Your task to perform on an android device: Do I have any events this weekend? Image 0: 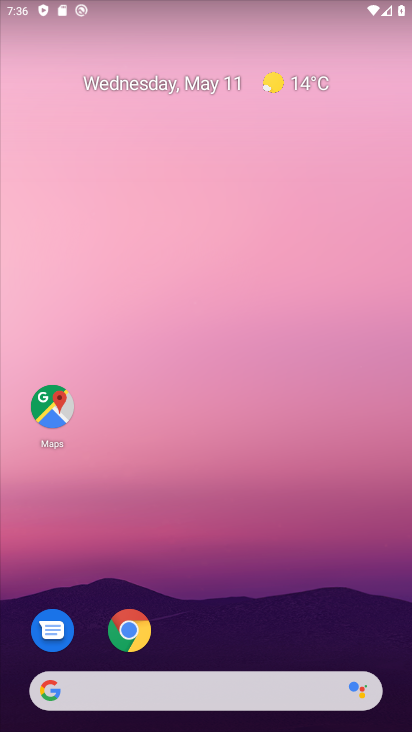
Step 0: drag from (319, 634) to (163, 128)
Your task to perform on an android device: Do I have any events this weekend? Image 1: 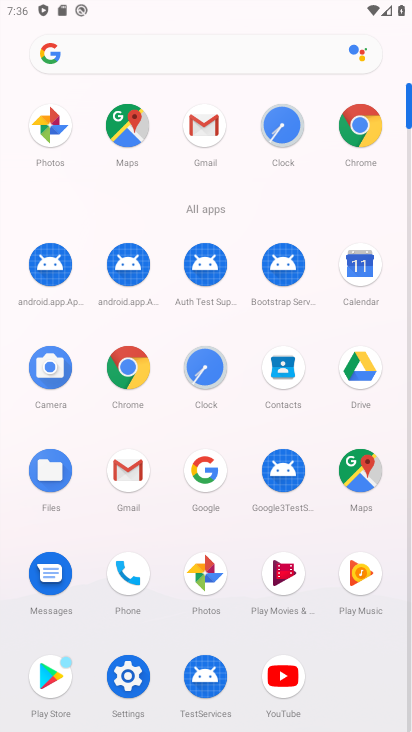
Step 1: click (356, 269)
Your task to perform on an android device: Do I have any events this weekend? Image 2: 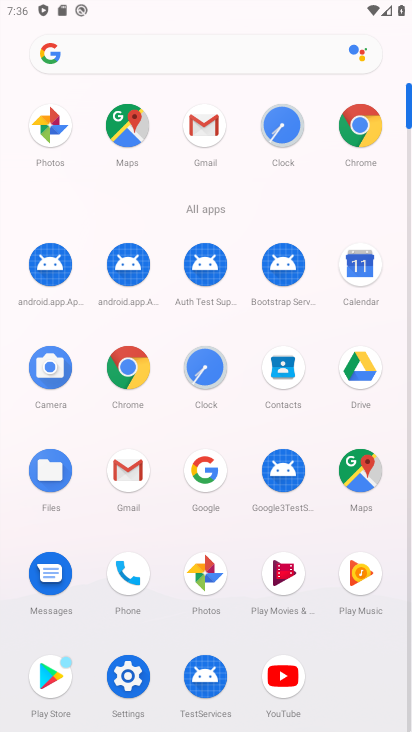
Step 2: click (356, 269)
Your task to perform on an android device: Do I have any events this weekend? Image 3: 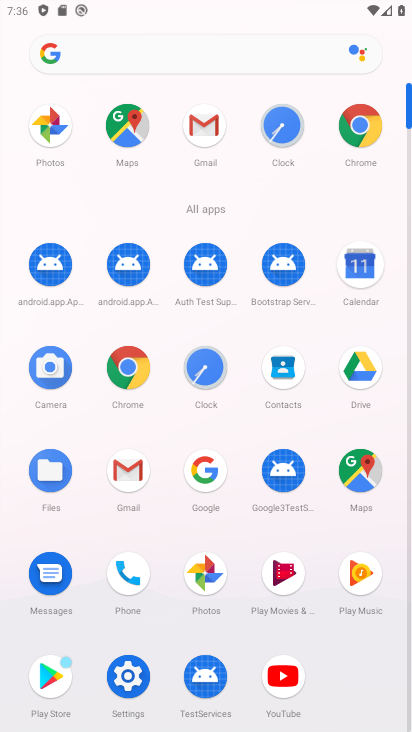
Step 3: click (356, 269)
Your task to perform on an android device: Do I have any events this weekend? Image 4: 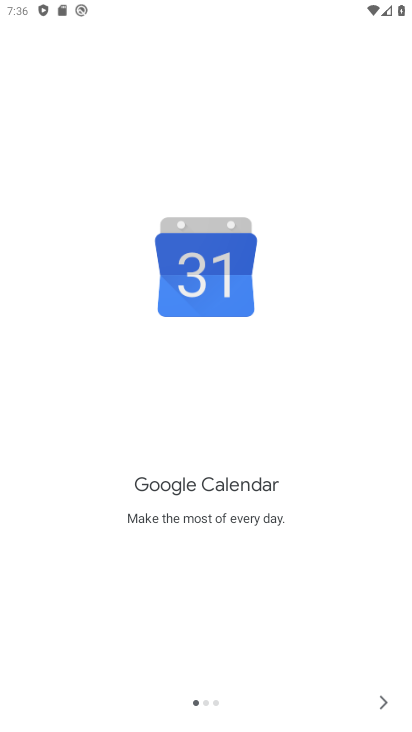
Step 4: click (369, 698)
Your task to perform on an android device: Do I have any events this weekend? Image 5: 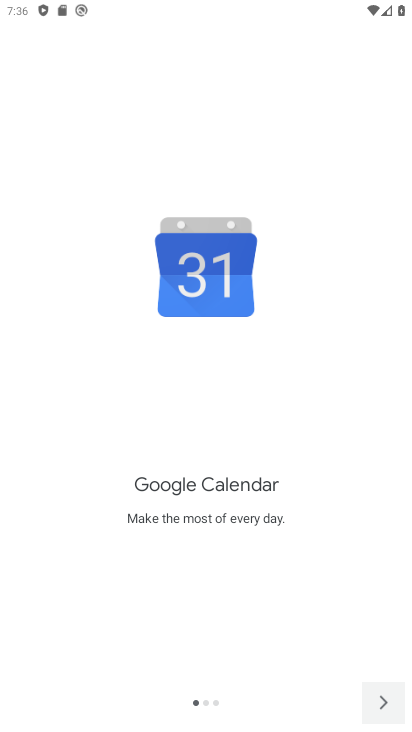
Step 5: click (386, 682)
Your task to perform on an android device: Do I have any events this weekend? Image 6: 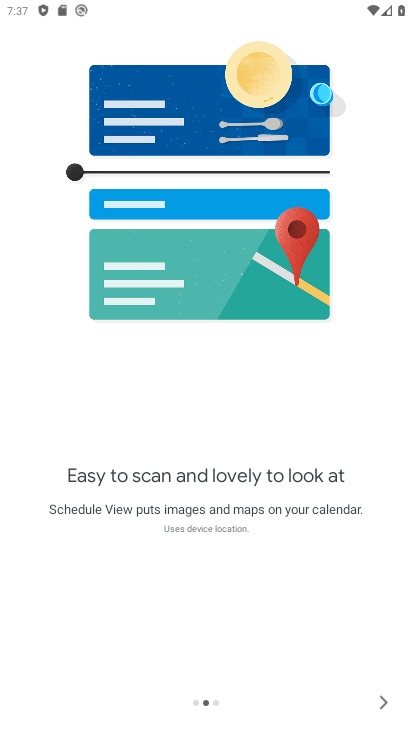
Step 6: click (374, 698)
Your task to perform on an android device: Do I have any events this weekend? Image 7: 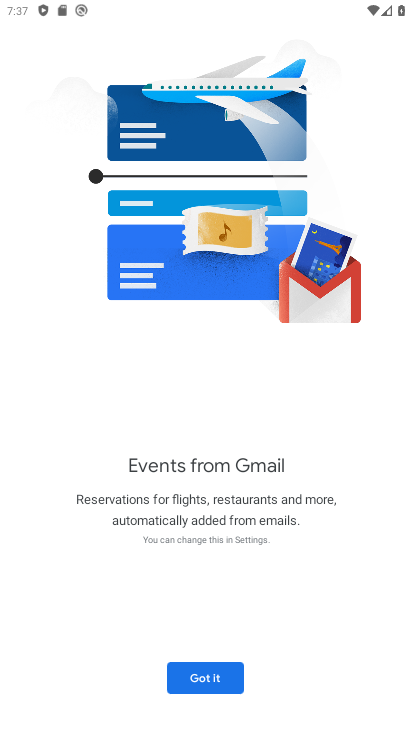
Step 7: click (222, 685)
Your task to perform on an android device: Do I have any events this weekend? Image 8: 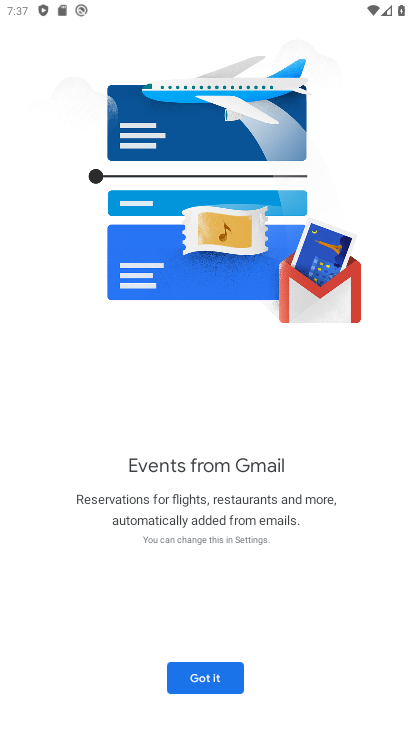
Step 8: click (222, 685)
Your task to perform on an android device: Do I have any events this weekend? Image 9: 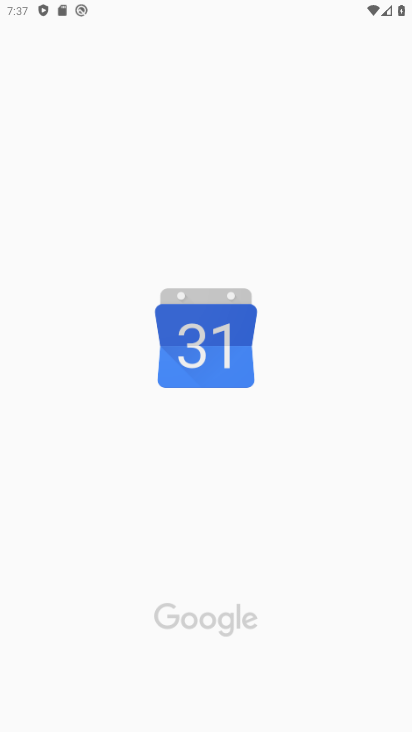
Step 9: click (222, 679)
Your task to perform on an android device: Do I have any events this weekend? Image 10: 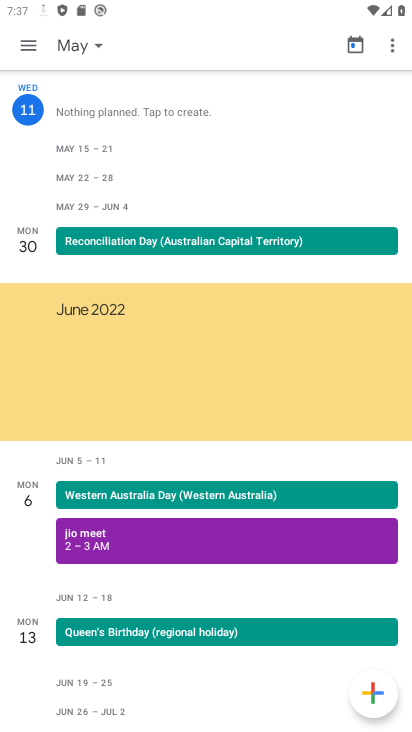
Step 10: drag from (130, 593) to (137, 117)
Your task to perform on an android device: Do I have any events this weekend? Image 11: 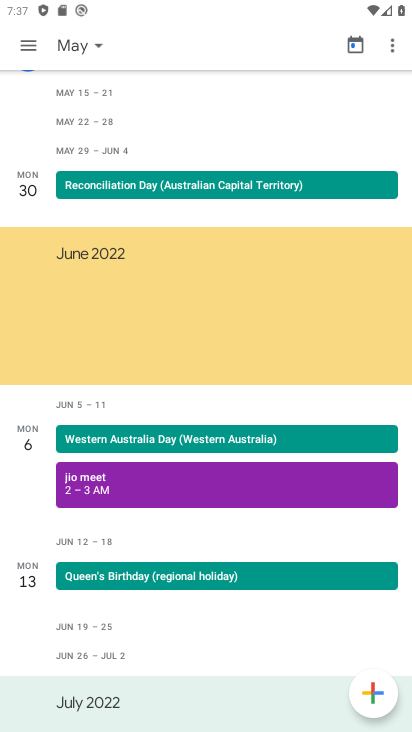
Step 11: click (100, 578)
Your task to perform on an android device: Do I have any events this weekend? Image 12: 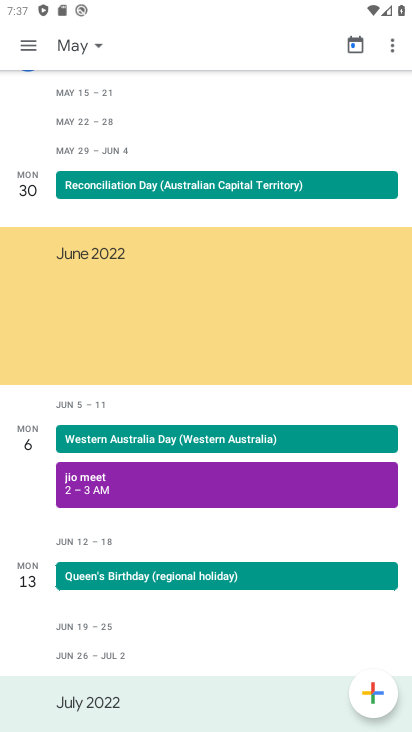
Step 12: click (99, 579)
Your task to perform on an android device: Do I have any events this weekend? Image 13: 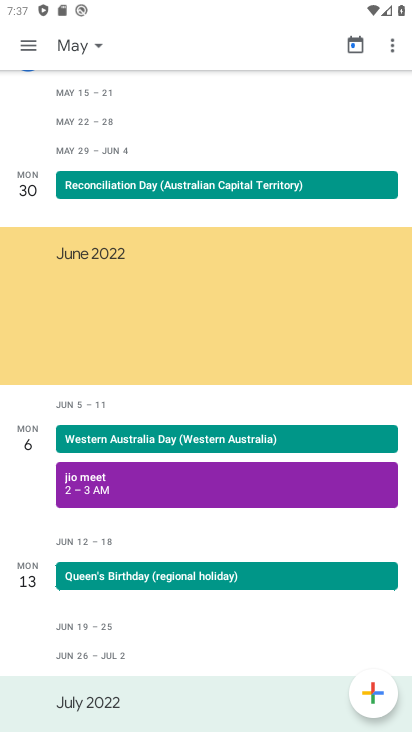
Step 13: click (101, 579)
Your task to perform on an android device: Do I have any events this weekend? Image 14: 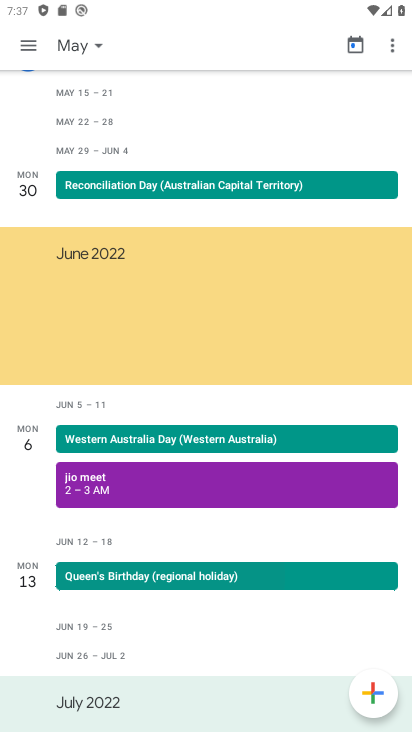
Step 14: click (101, 579)
Your task to perform on an android device: Do I have any events this weekend? Image 15: 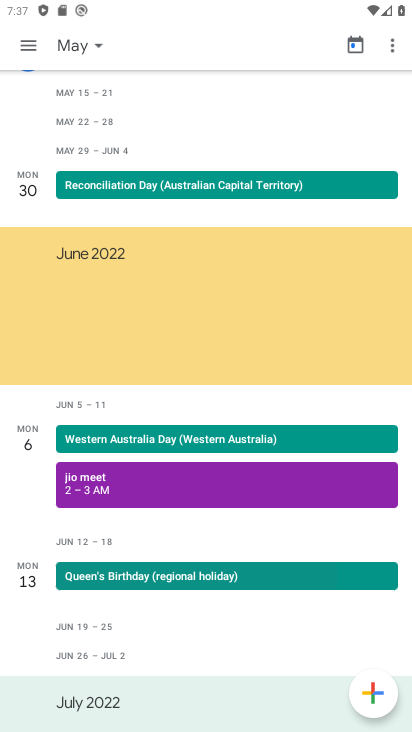
Step 15: click (102, 580)
Your task to perform on an android device: Do I have any events this weekend? Image 16: 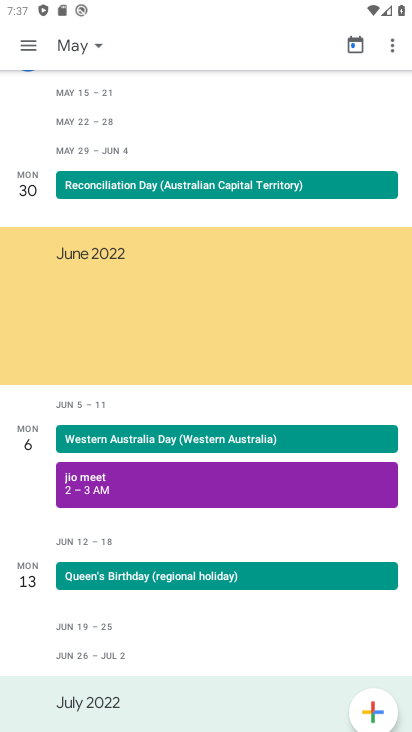
Step 16: click (103, 582)
Your task to perform on an android device: Do I have any events this weekend? Image 17: 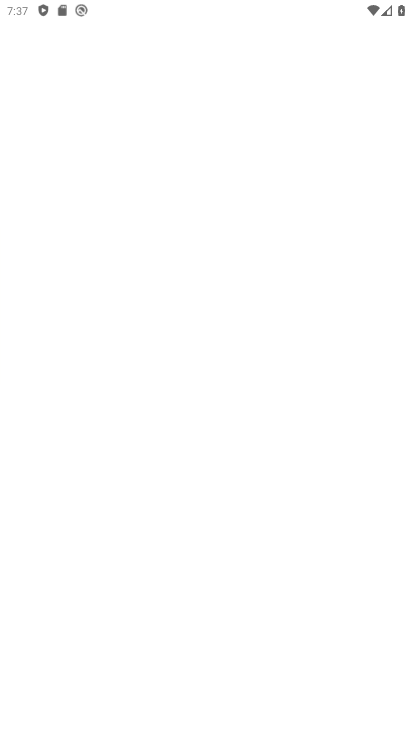
Step 17: click (96, 582)
Your task to perform on an android device: Do I have any events this weekend? Image 18: 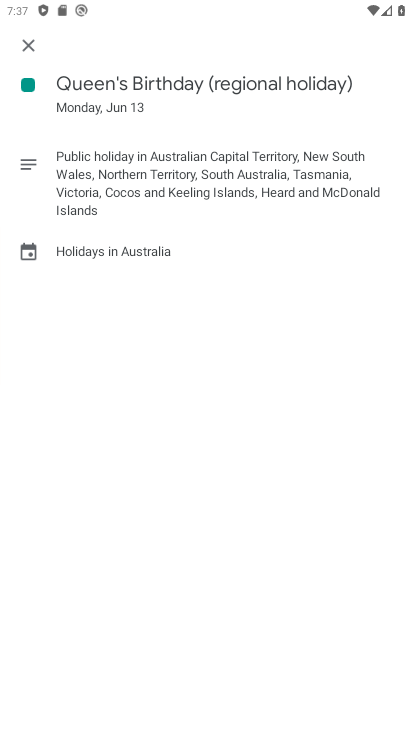
Step 18: click (99, 581)
Your task to perform on an android device: Do I have any events this weekend? Image 19: 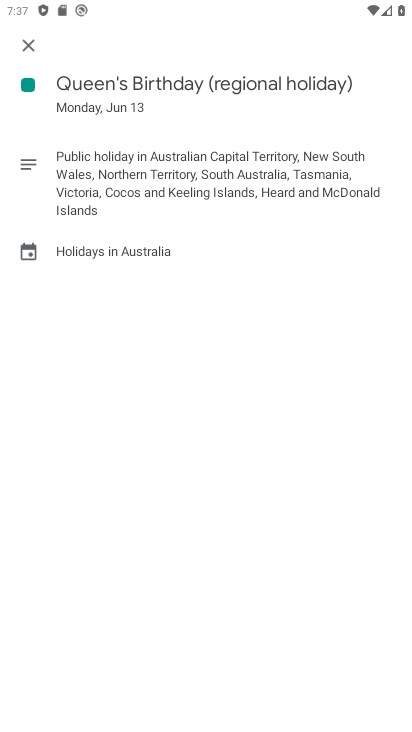
Step 19: click (46, 53)
Your task to perform on an android device: Do I have any events this weekend? Image 20: 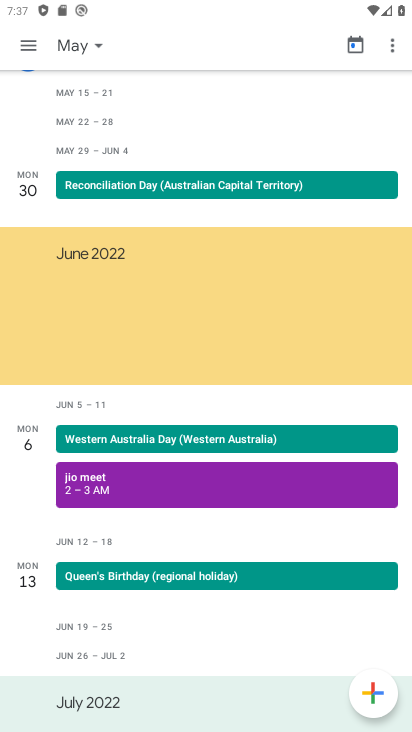
Step 20: task complete